Your task to perform on an android device: Open wifi settings Image 0: 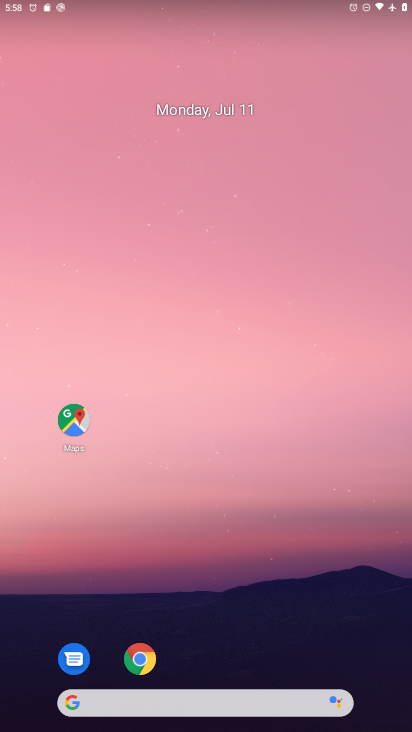
Step 0: drag from (339, 639) to (293, 105)
Your task to perform on an android device: Open wifi settings Image 1: 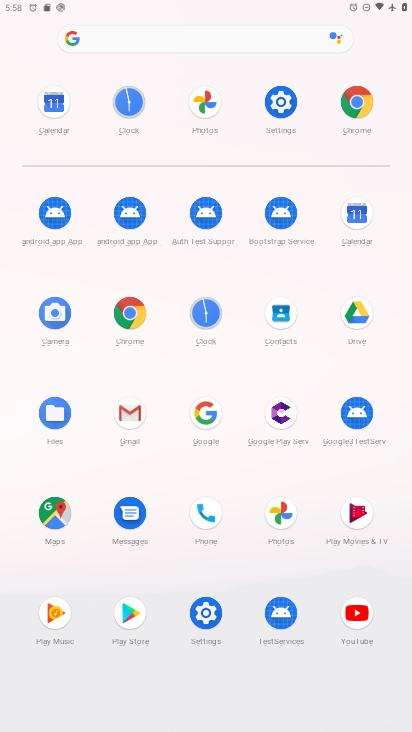
Step 1: click (206, 610)
Your task to perform on an android device: Open wifi settings Image 2: 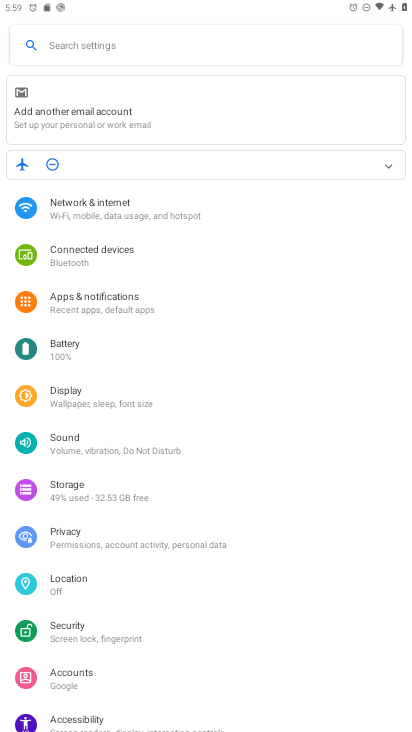
Step 2: click (78, 200)
Your task to perform on an android device: Open wifi settings Image 3: 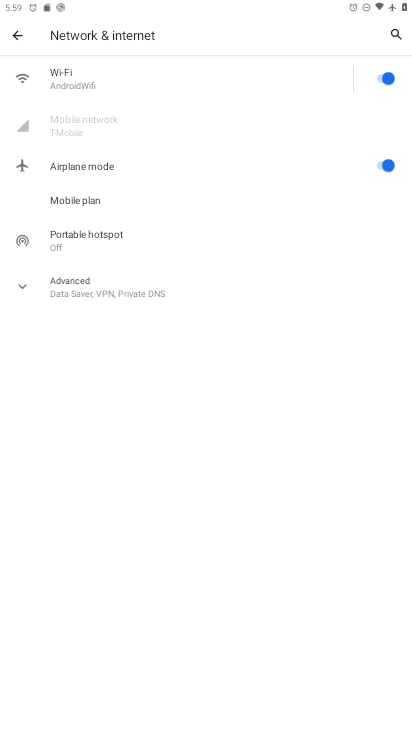
Step 3: click (62, 75)
Your task to perform on an android device: Open wifi settings Image 4: 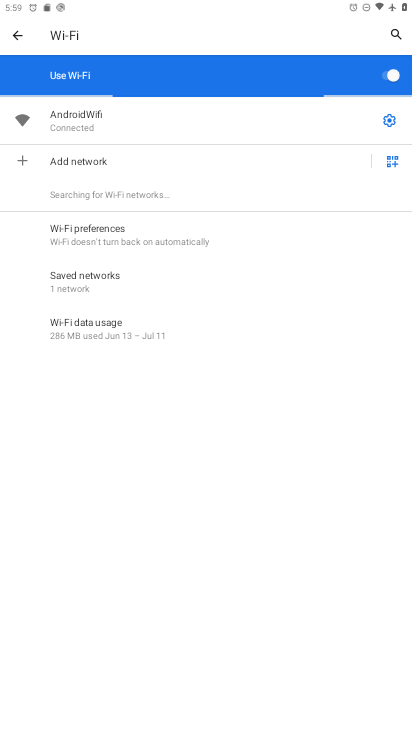
Step 4: click (392, 121)
Your task to perform on an android device: Open wifi settings Image 5: 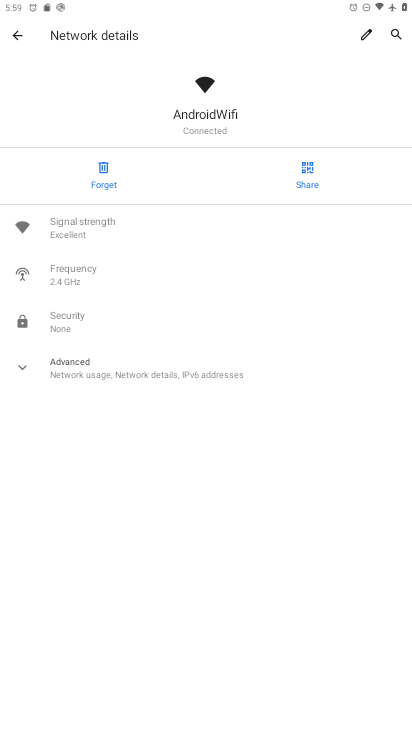
Step 5: task complete